Your task to perform on an android device: Open the stopwatch Image 0: 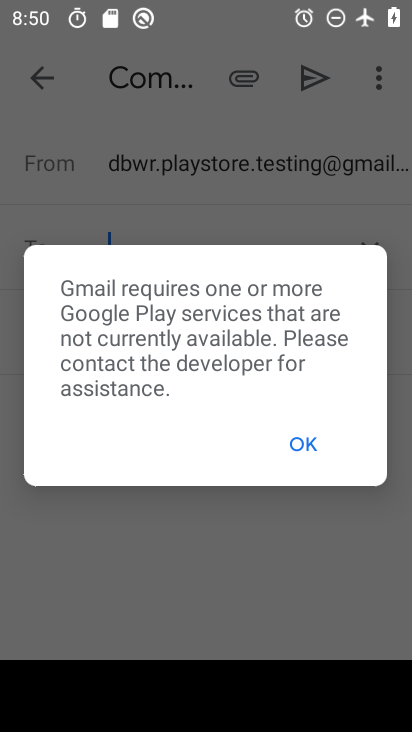
Step 0: click (311, 445)
Your task to perform on an android device: Open the stopwatch Image 1: 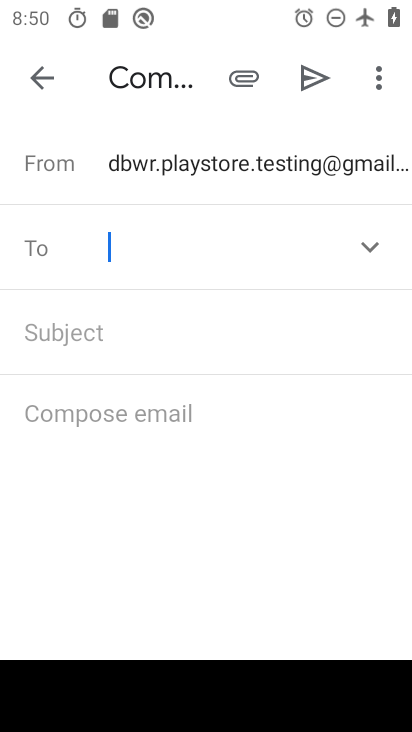
Step 1: press home button
Your task to perform on an android device: Open the stopwatch Image 2: 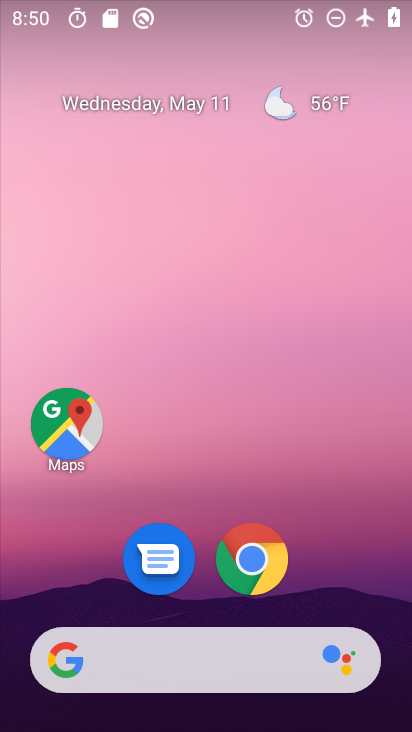
Step 2: drag from (321, 571) to (333, 15)
Your task to perform on an android device: Open the stopwatch Image 3: 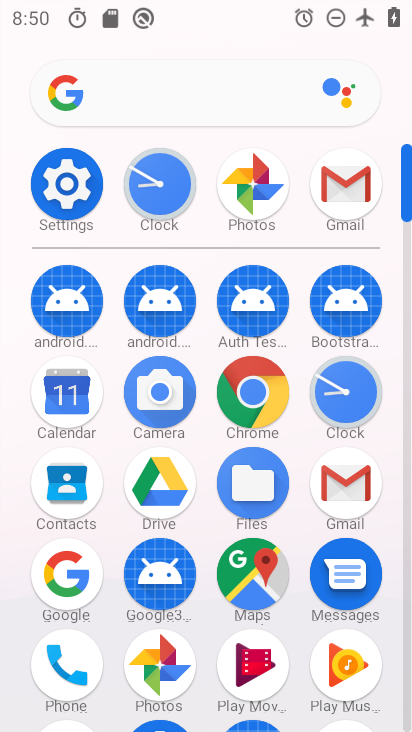
Step 3: click (158, 202)
Your task to perform on an android device: Open the stopwatch Image 4: 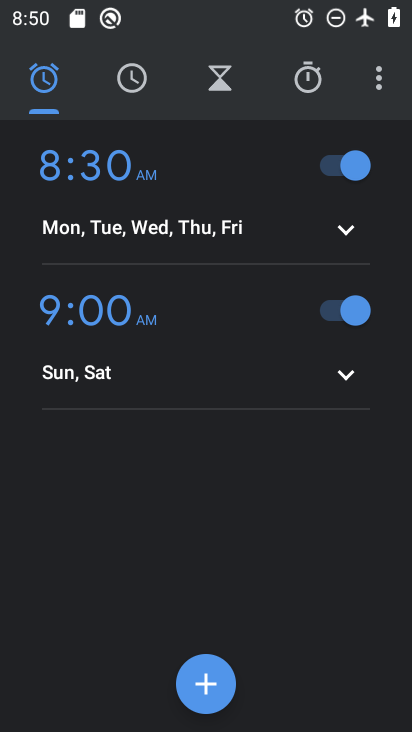
Step 4: click (312, 77)
Your task to perform on an android device: Open the stopwatch Image 5: 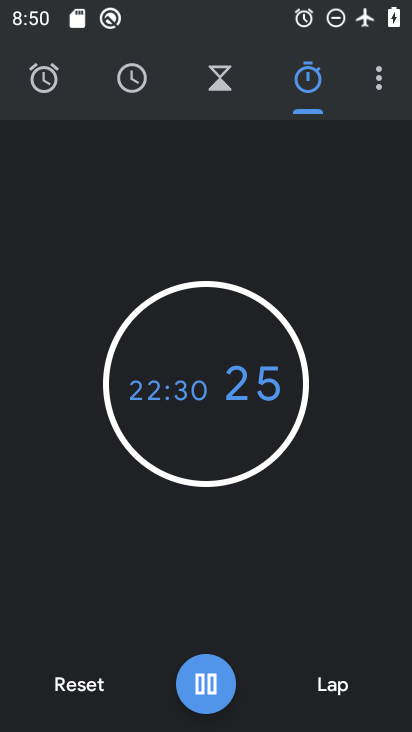
Step 5: task complete